Your task to perform on an android device: View the shopping cart on bestbuy. Search for "razer blade" on bestbuy, select the first entry, add it to the cart, then select checkout. Image 0: 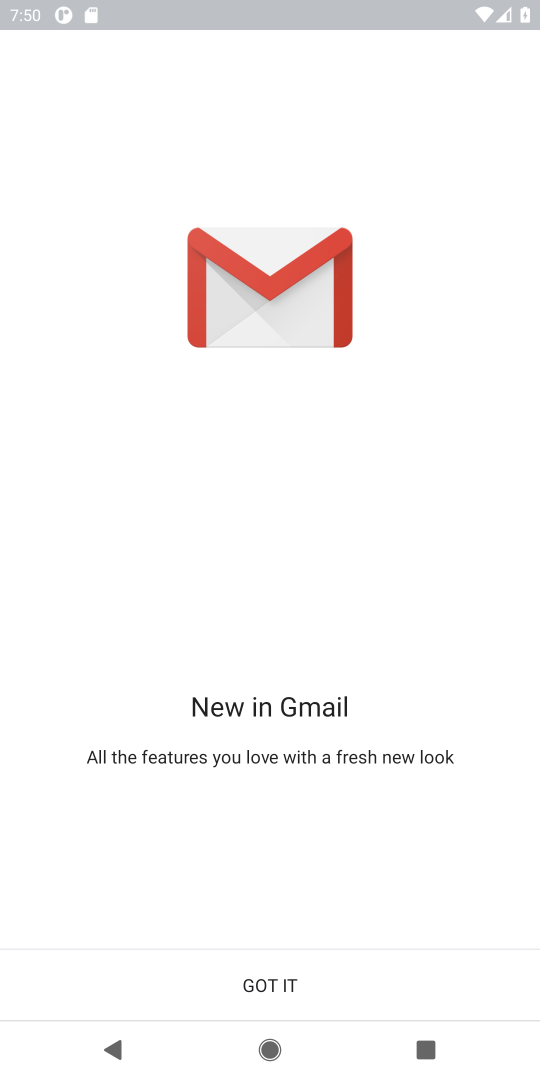
Step 0: press home button
Your task to perform on an android device: View the shopping cart on bestbuy. Search for "razer blade" on bestbuy, select the first entry, add it to the cart, then select checkout. Image 1: 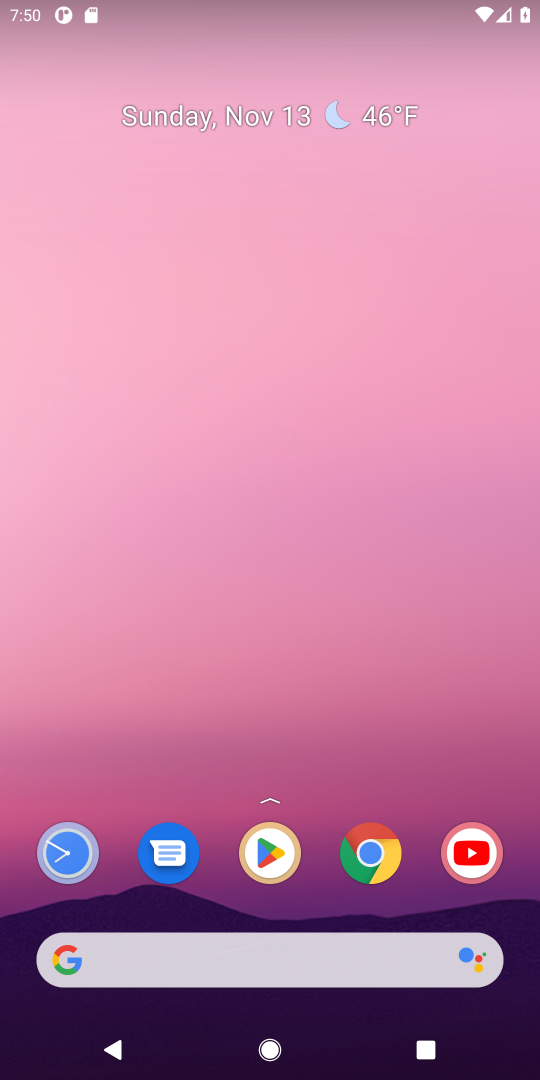
Step 1: click (106, 951)
Your task to perform on an android device: View the shopping cart on bestbuy. Search for "razer blade" on bestbuy, select the first entry, add it to the cart, then select checkout. Image 2: 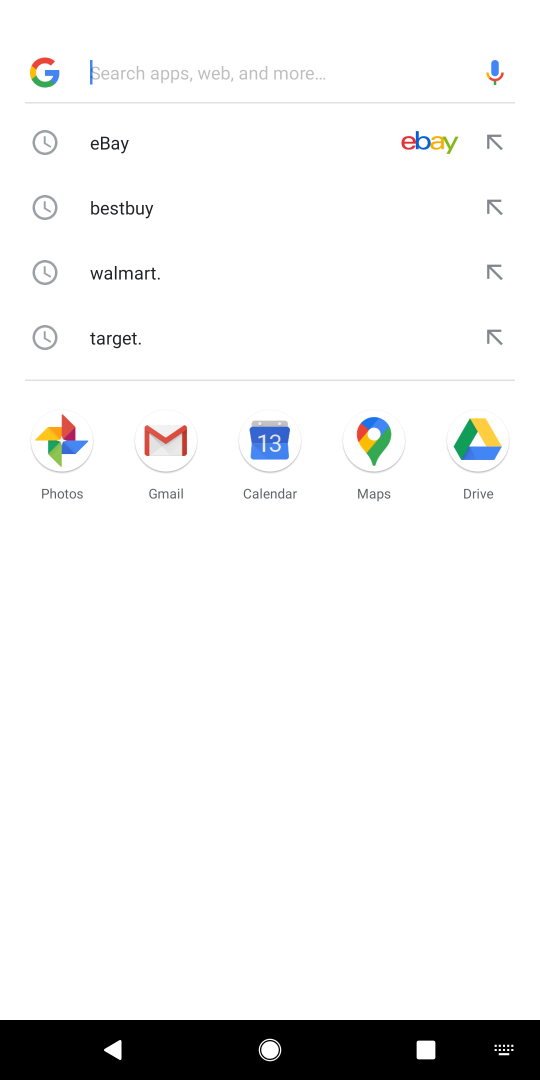
Step 2: type "bestbuy"
Your task to perform on an android device: View the shopping cart on bestbuy. Search for "razer blade" on bestbuy, select the first entry, add it to the cart, then select checkout. Image 3: 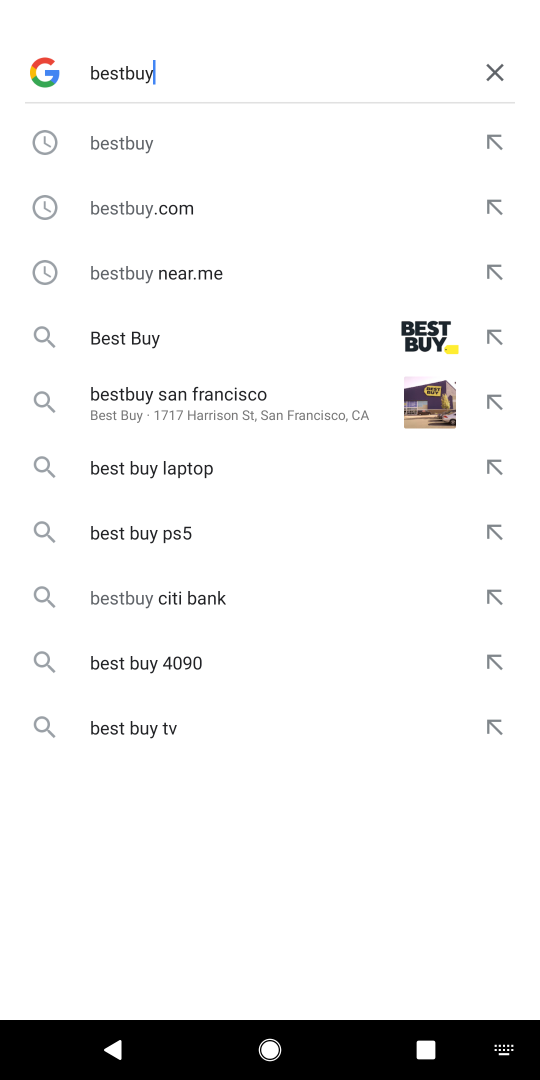
Step 3: press enter
Your task to perform on an android device: View the shopping cart on bestbuy. Search for "razer blade" on bestbuy, select the first entry, add it to the cart, then select checkout. Image 4: 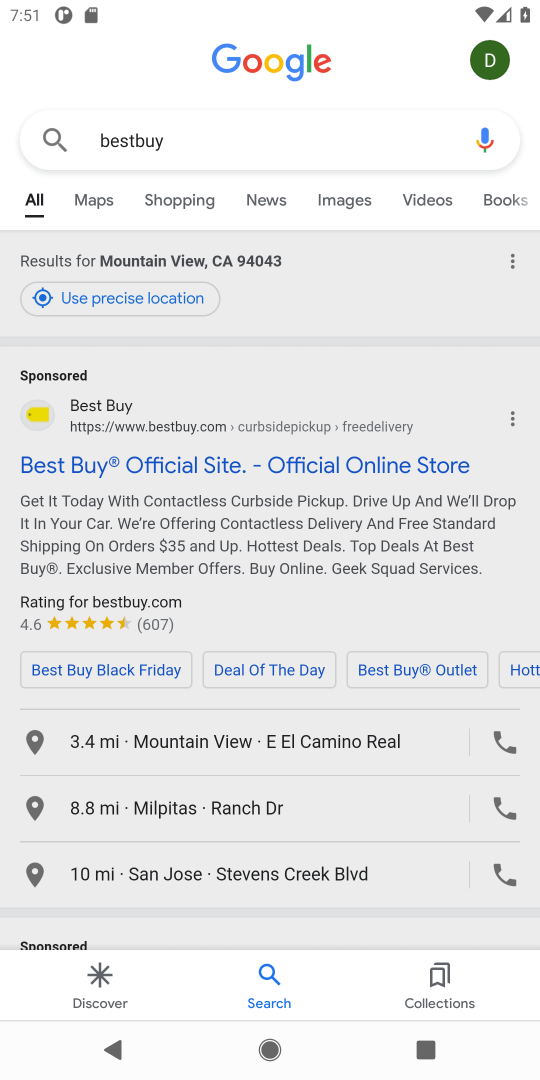
Step 4: click (112, 467)
Your task to perform on an android device: View the shopping cart on bestbuy. Search for "razer blade" on bestbuy, select the first entry, add it to the cart, then select checkout. Image 5: 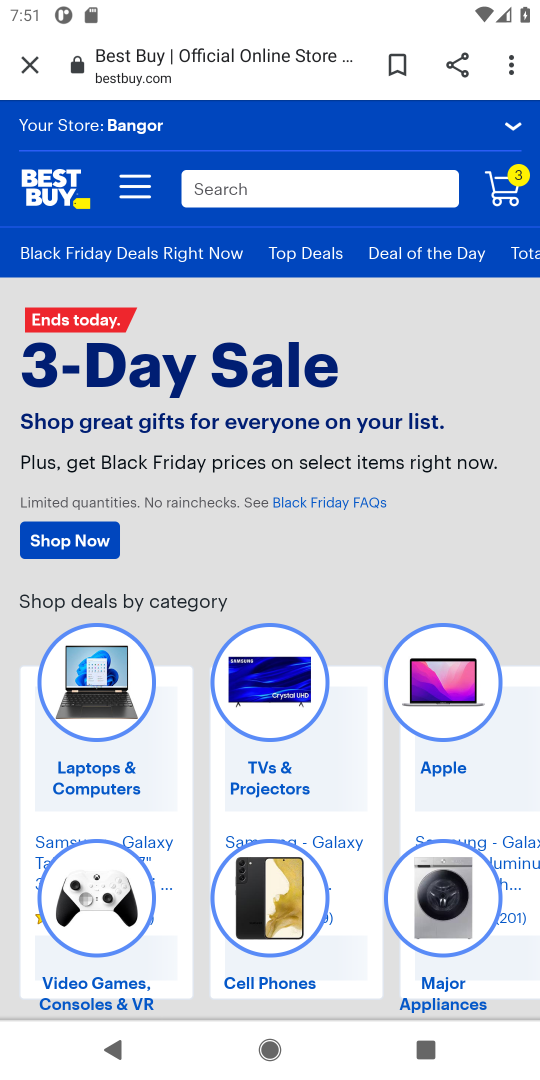
Step 5: click (516, 183)
Your task to perform on an android device: View the shopping cart on bestbuy. Search for "razer blade" on bestbuy, select the first entry, add it to the cart, then select checkout. Image 6: 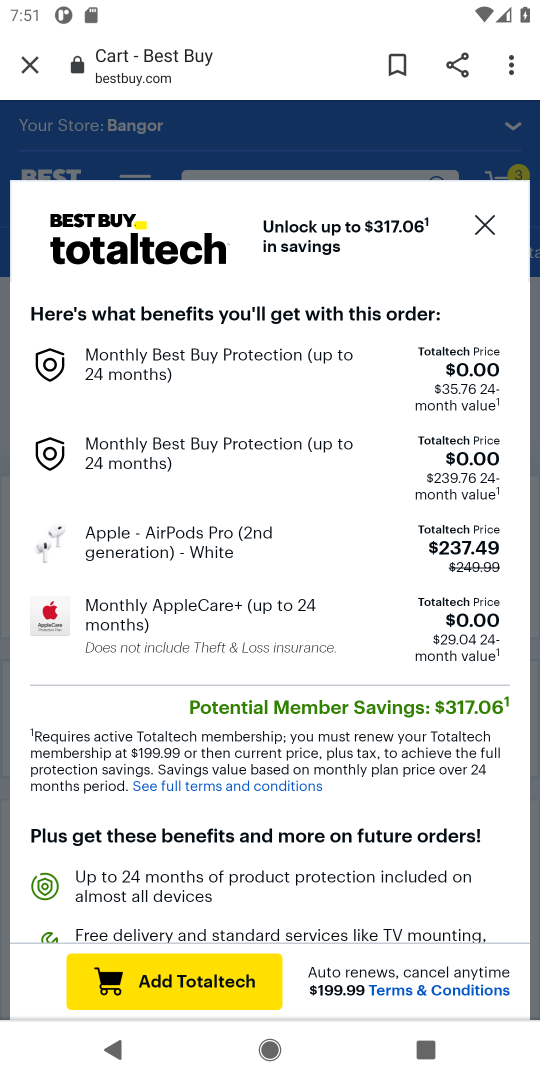
Step 6: click (487, 229)
Your task to perform on an android device: View the shopping cart on bestbuy. Search for "razer blade" on bestbuy, select the first entry, add it to the cart, then select checkout. Image 7: 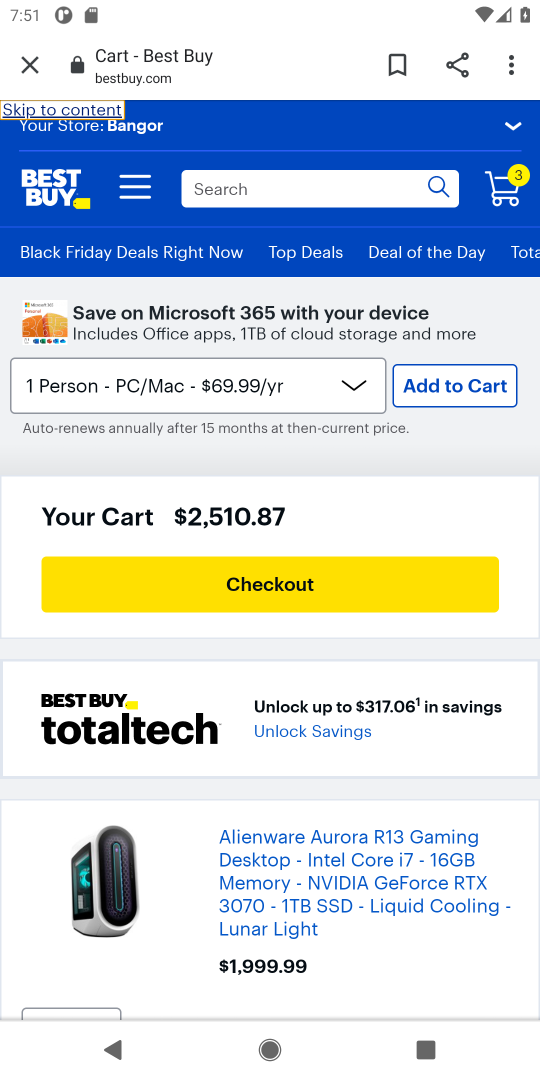
Step 7: click (217, 184)
Your task to perform on an android device: View the shopping cart on bestbuy. Search for "razer blade" on bestbuy, select the first entry, add it to the cart, then select checkout. Image 8: 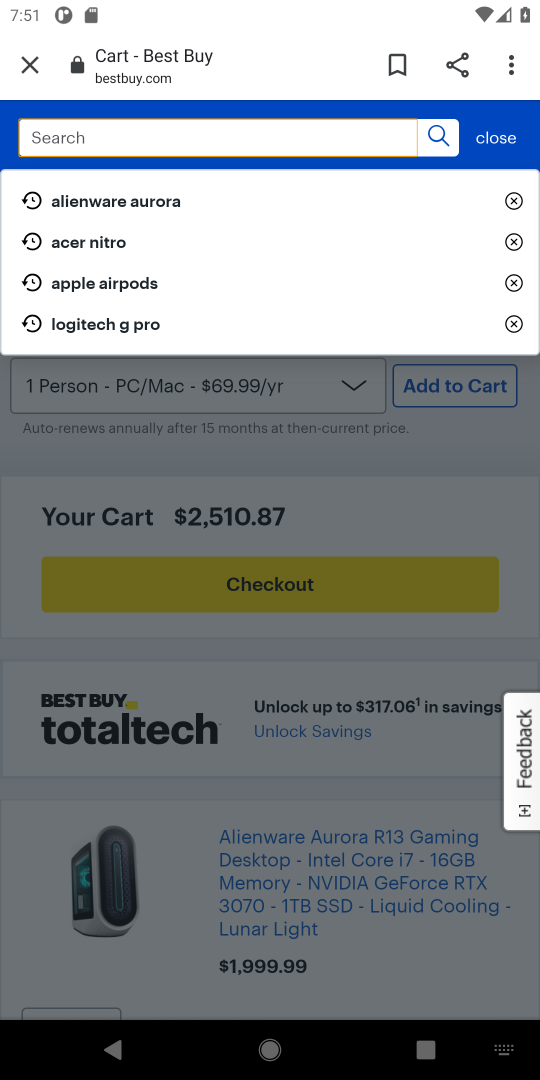
Step 8: press enter
Your task to perform on an android device: View the shopping cart on bestbuy. Search for "razer blade" on bestbuy, select the first entry, add it to the cart, then select checkout. Image 9: 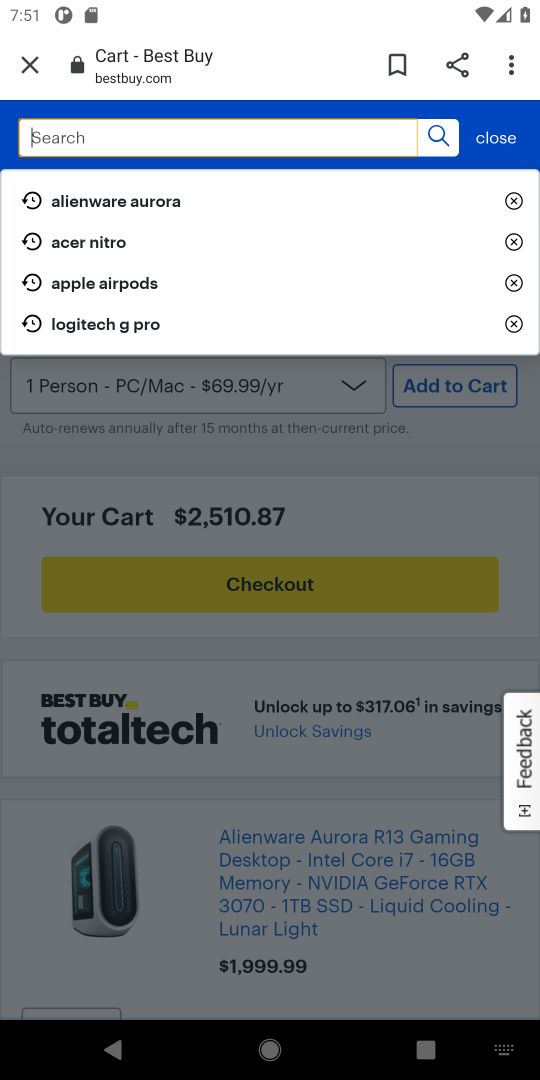
Step 9: type "razer blade"
Your task to perform on an android device: View the shopping cart on bestbuy. Search for "razer blade" on bestbuy, select the first entry, add it to the cart, then select checkout. Image 10: 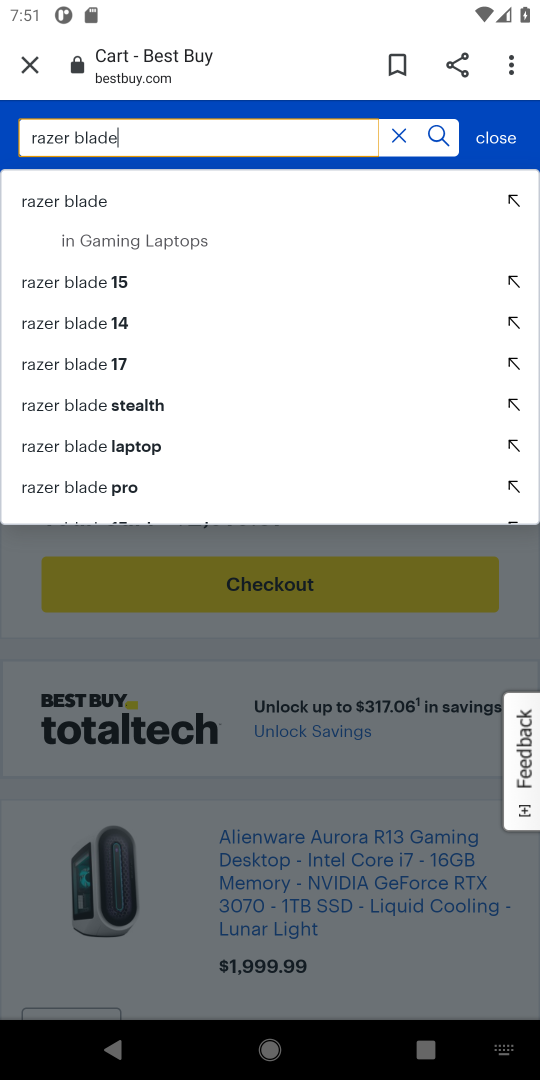
Step 10: press enter
Your task to perform on an android device: View the shopping cart on bestbuy. Search for "razer blade" on bestbuy, select the first entry, add it to the cart, then select checkout. Image 11: 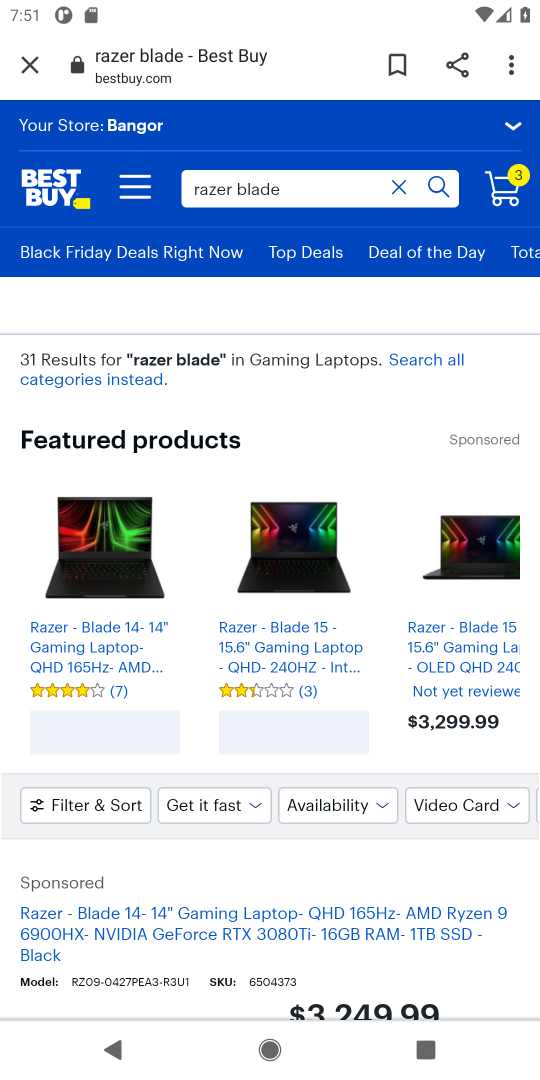
Step 11: drag from (274, 878) to (293, 357)
Your task to perform on an android device: View the shopping cart on bestbuy. Search for "razer blade" on bestbuy, select the first entry, add it to the cart, then select checkout. Image 12: 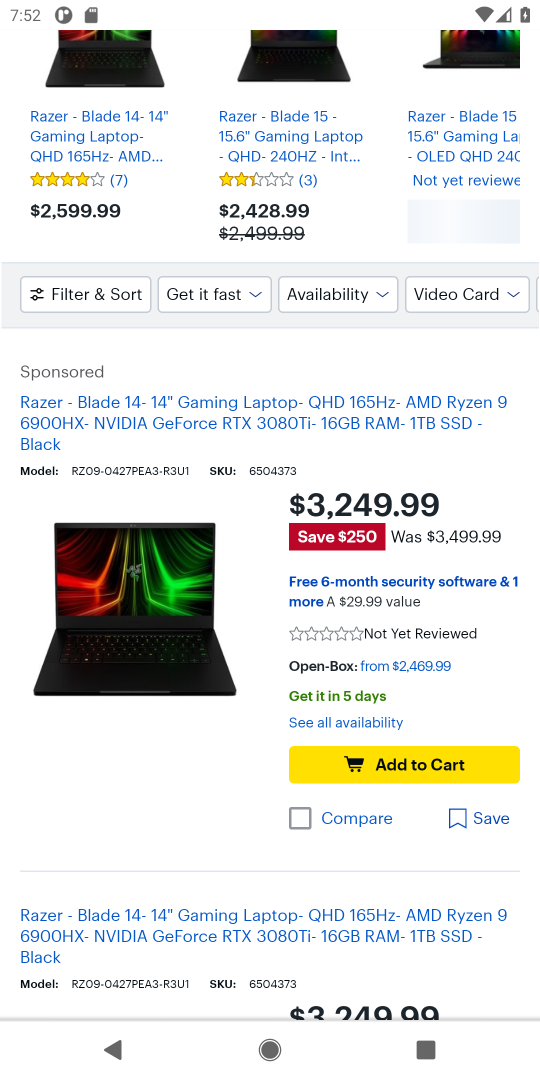
Step 12: drag from (240, 829) to (250, 401)
Your task to perform on an android device: View the shopping cart on bestbuy. Search for "razer blade" on bestbuy, select the first entry, add it to the cart, then select checkout. Image 13: 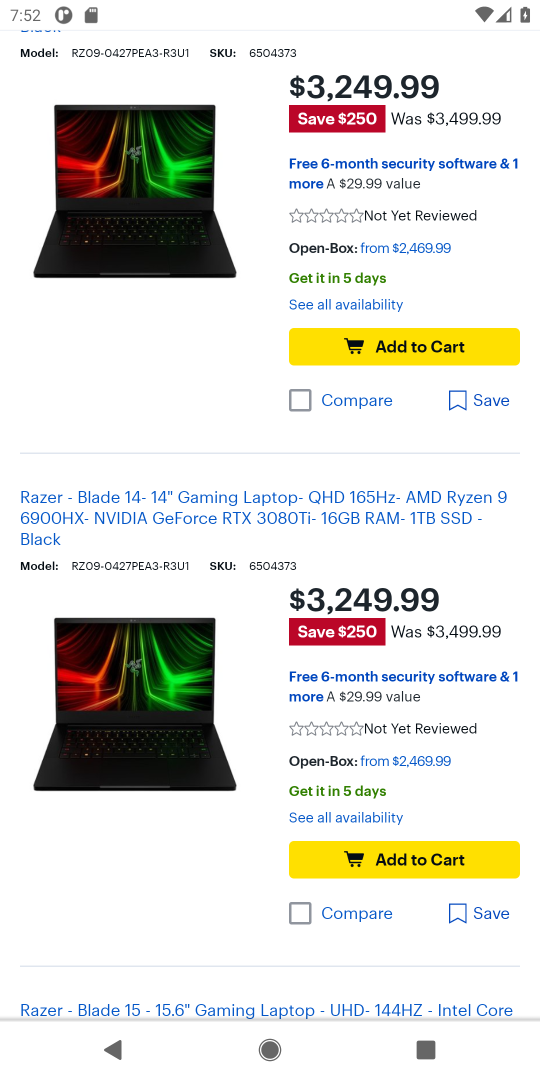
Step 13: click (395, 351)
Your task to perform on an android device: View the shopping cart on bestbuy. Search for "razer blade" on bestbuy, select the first entry, add it to the cart, then select checkout. Image 14: 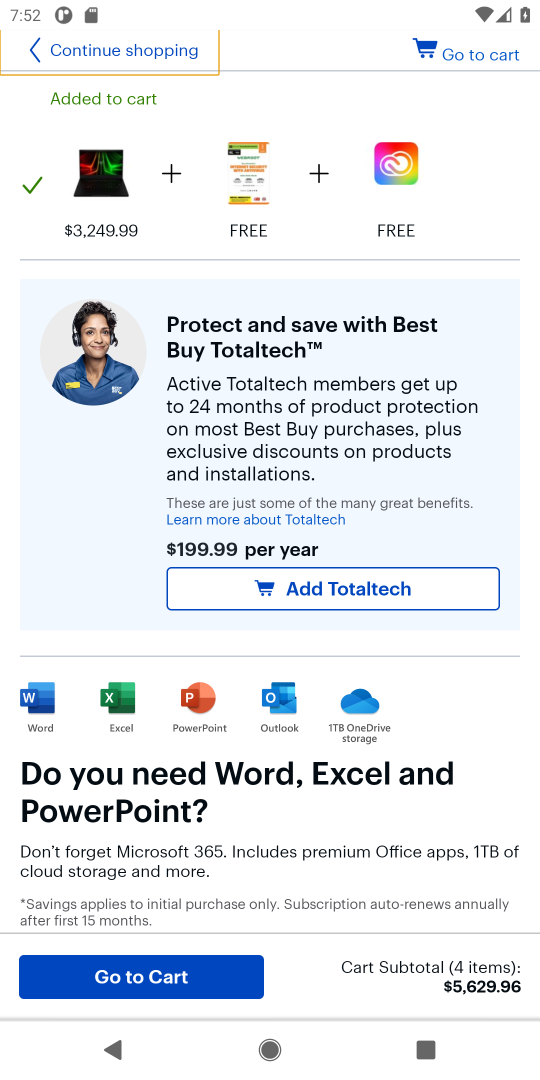
Step 14: task complete